Your task to perform on an android device: turn on data saver in the chrome app Image 0: 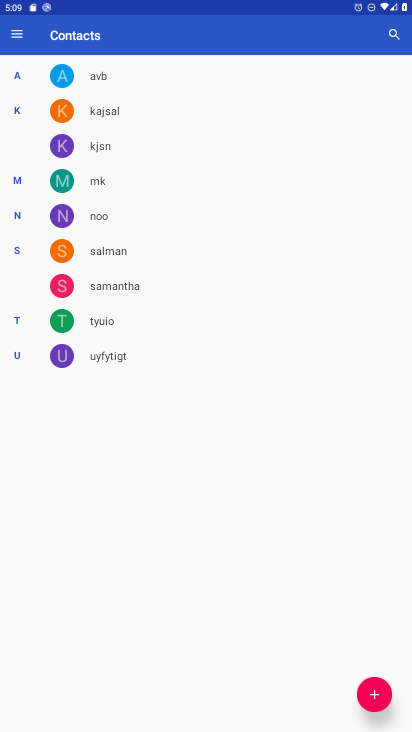
Step 0: drag from (205, 666) to (298, 629)
Your task to perform on an android device: turn on data saver in the chrome app Image 1: 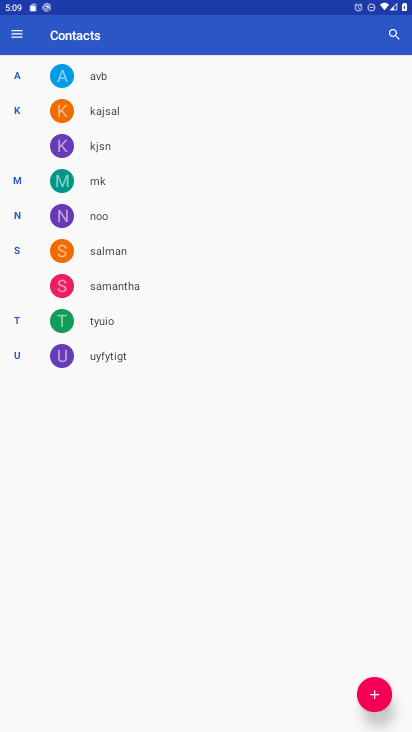
Step 1: press home button
Your task to perform on an android device: turn on data saver in the chrome app Image 2: 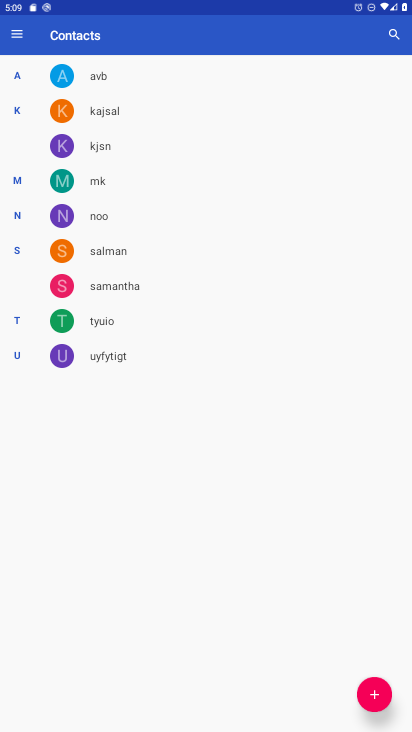
Step 2: drag from (298, 629) to (371, 653)
Your task to perform on an android device: turn on data saver in the chrome app Image 3: 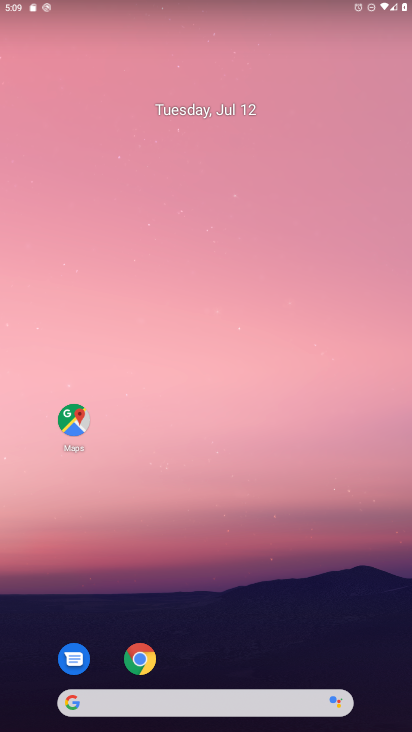
Step 3: click (138, 663)
Your task to perform on an android device: turn on data saver in the chrome app Image 4: 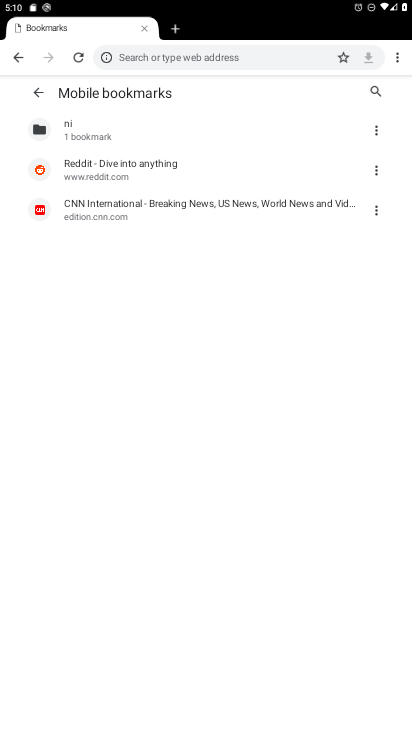
Step 4: press home button
Your task to perform on an android device: turn on data saver in the chrome app Image 5: 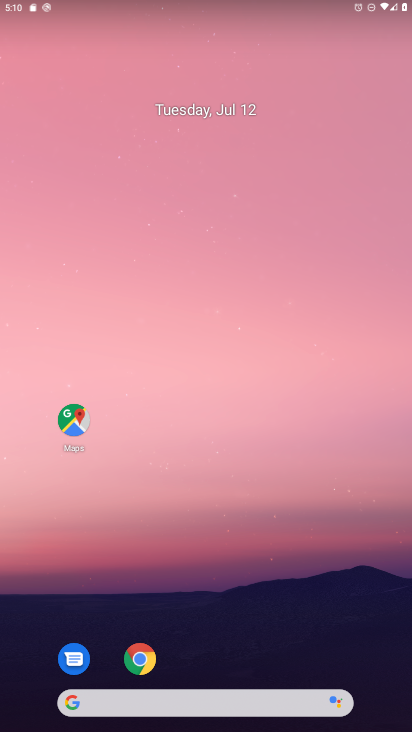
Step 5: click (135, 663)
Your task to perform on an android device: turn on data saver in the chrome app Image 6: 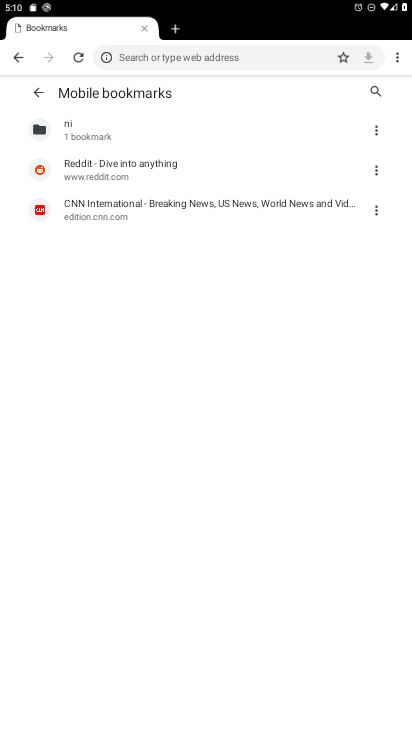
Step 6: click (398, 59)
Your task to perform on an android device: turn on data saver in the chrome app Image 7: 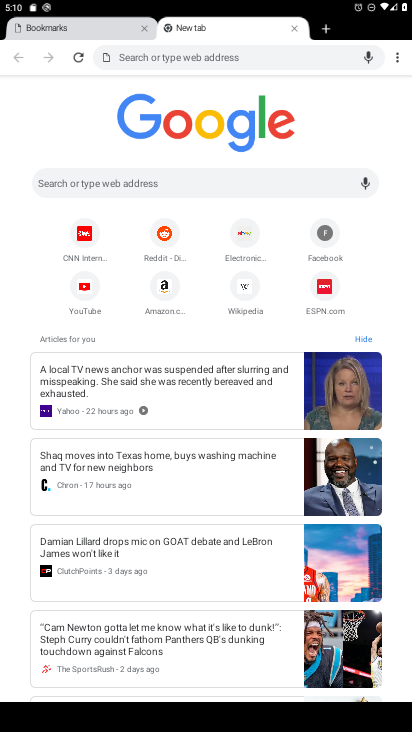
Step 7: click (398, 59)
Your task to perform on an android device: turn on data saver in the chrome app Image 8: 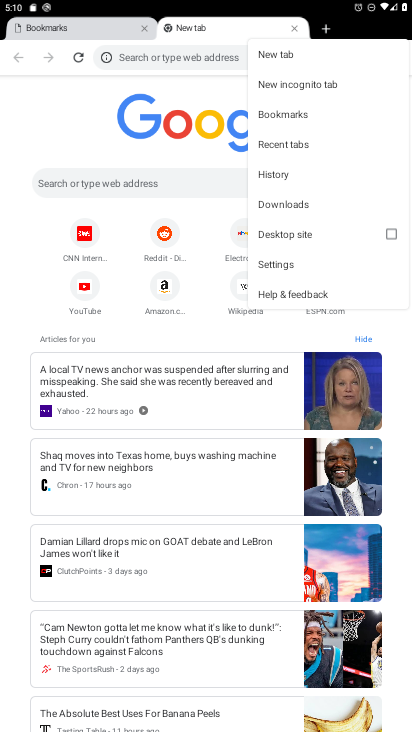
Step 8: click (271, 263)
Your task to perform on an android device: turn on data saver in the chrome app Image 9: 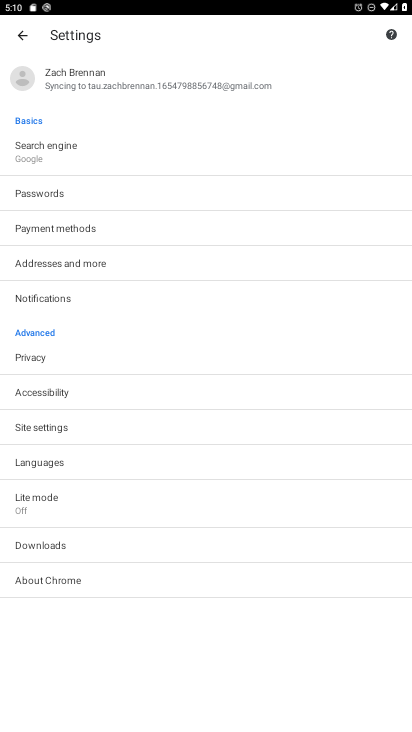
Step 9: click (37, 512)
Your task to perform on an android device: turn on data saver in the chrome app Image 10: 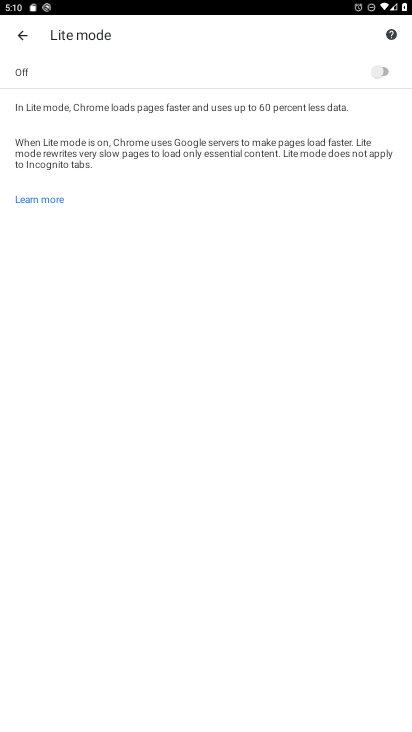
Step 10: click (384, 66)
Your task to perform on an android device: turn on data saver in the chrome app Image 11: 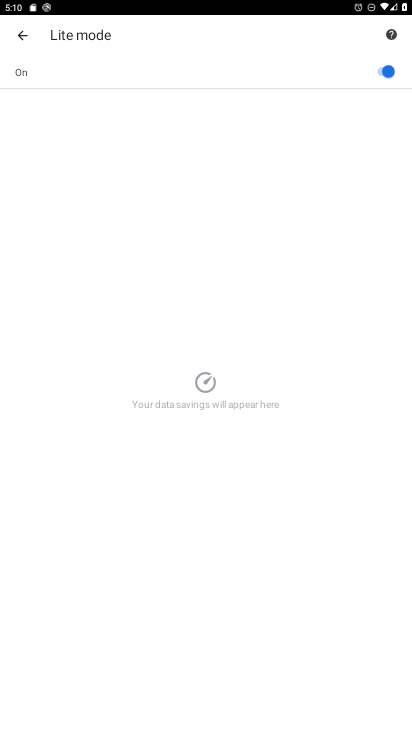
Step 11: task complete